Your task to perform on an android device: move a message to another label in the gmail app Image 0: 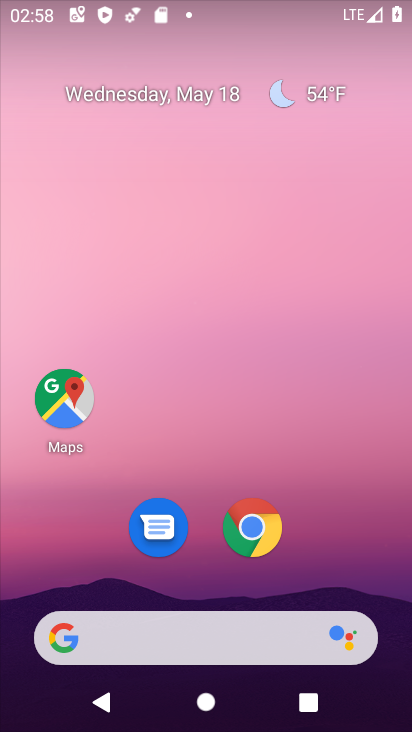
Step 0: drag from (209, 605) to (21, 164)
Your task to perform on an android device: move a message to another label in the gmail app Image 1: 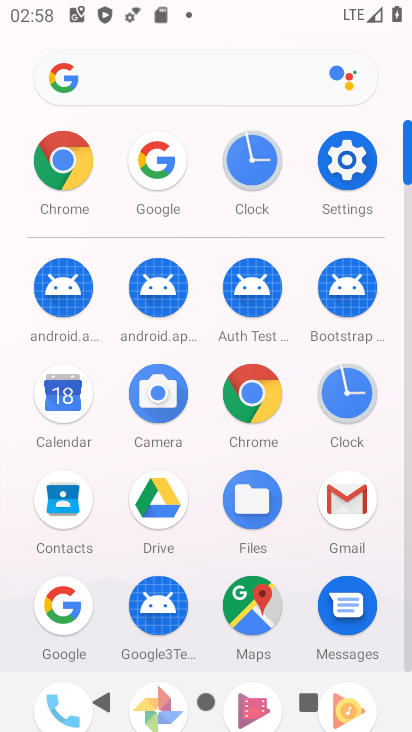
Step 1: click (340, 504)
Your task to perform on an android device: move a message to another label in the gmail app Image 2: 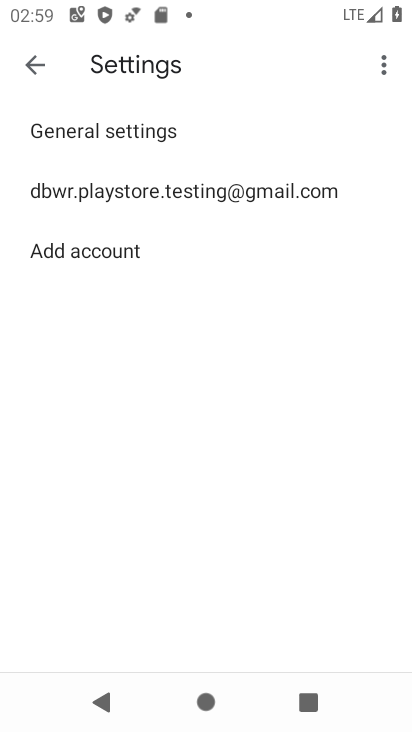
Step 2: click (38, 67)
Your task to perform on an android device: move a message to another label in the gmail app Image 3: 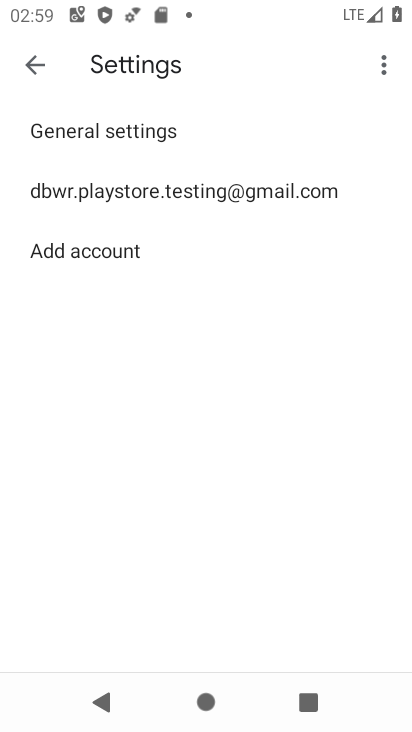
Step 3: click (24, 77)
Your task to perform on an android device: move a message to another label in the gmail app Image 4: 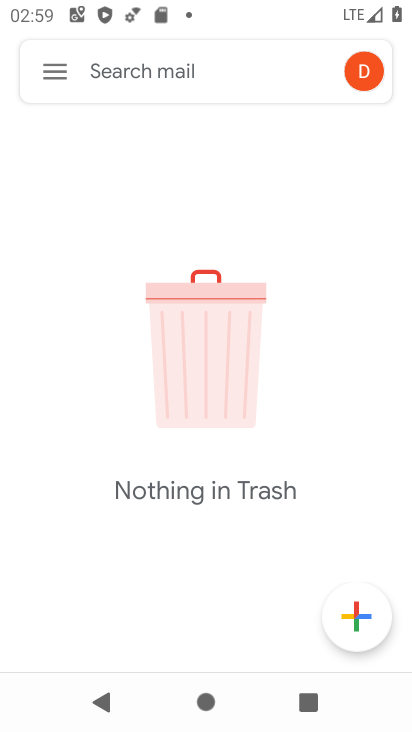
Step 4: click (72, 88)
Your task to perform on an android device: move a message to another label in the gmail app Image 5: 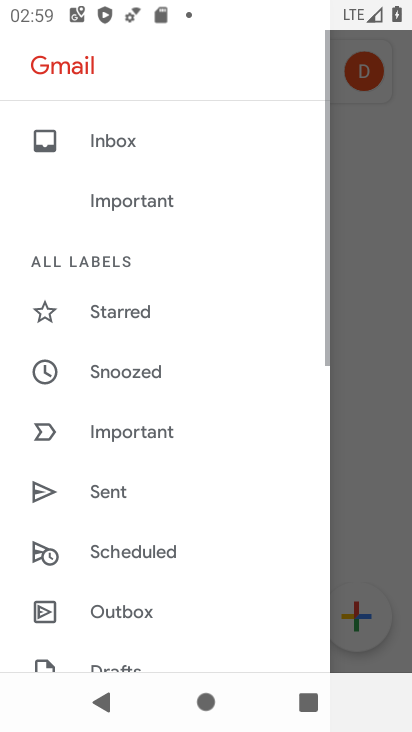
Step 5: drag from (151, 416) to (114, 169)
Your task to perform on an android device: move a message to another label in the gmail app Image 6: 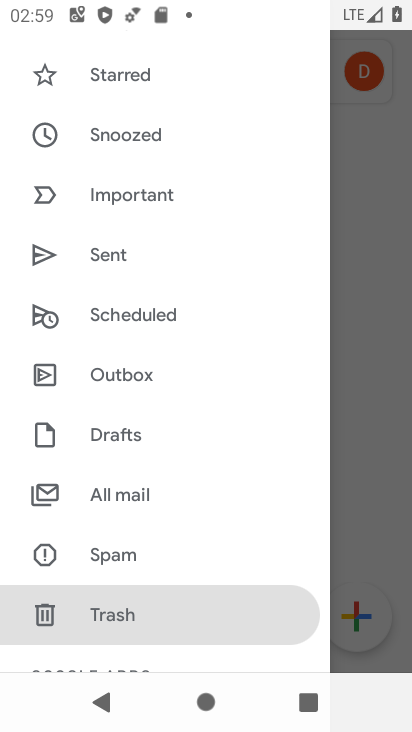
Step 6: drag from (136, 531) to (105, 386)
Your task to perform on an android device: move a message to another label in the gmail app Image 7: 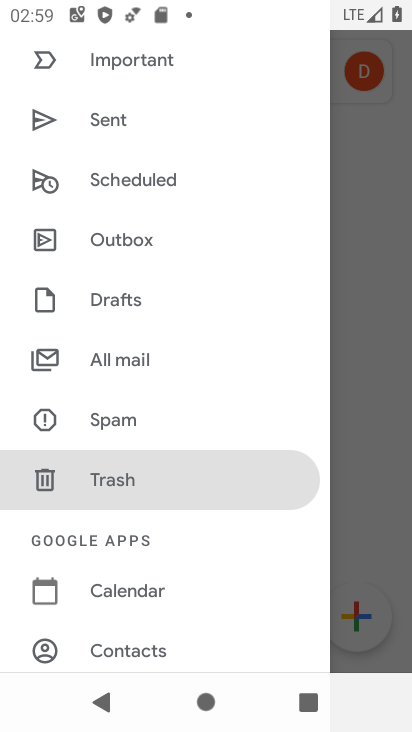
Step 7: drag from (126, 212) to (158, 657)
Your task to perform on an android device: move a message to another label in the gmail app Image 8: 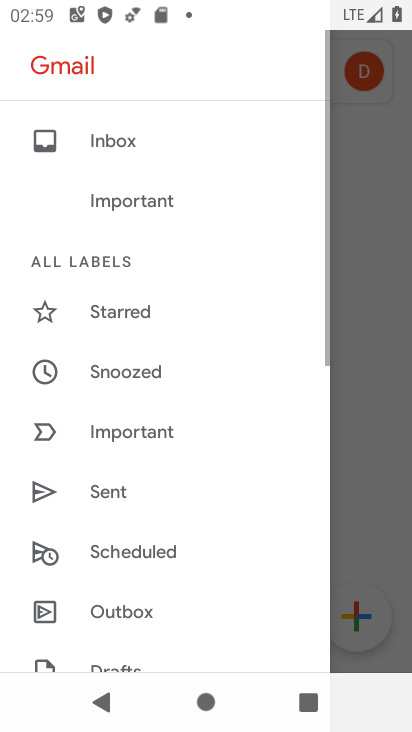
Step 8: click (125, 323)
Your task to perform on an android device: move a message to another label in the gmail app Image 9: 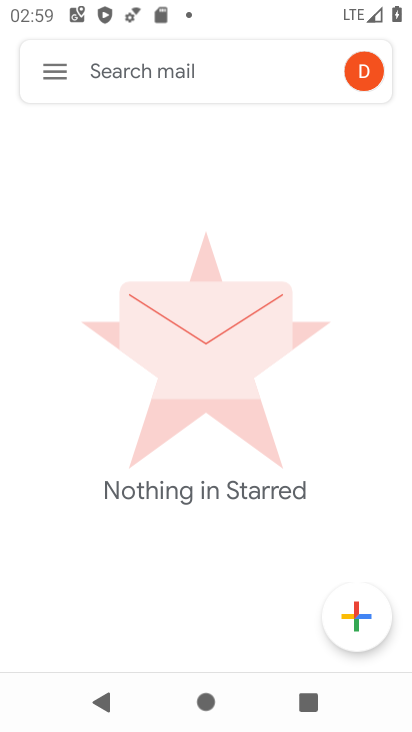
Step 9: task complete